Your task to perform on an android device: Open the Play Movies app and select the watchlist tab. Image 0: 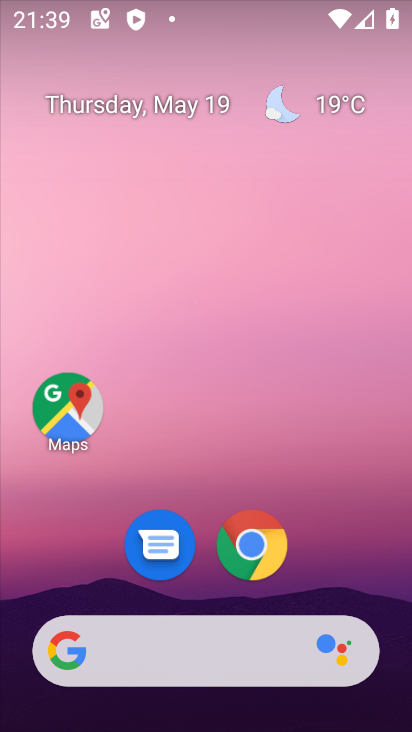
Step 0: drag from (356, 587) to (294, 196)
Your task to perform on an android device: Open the Play Movies app and select the watchlist tab. Image 1: 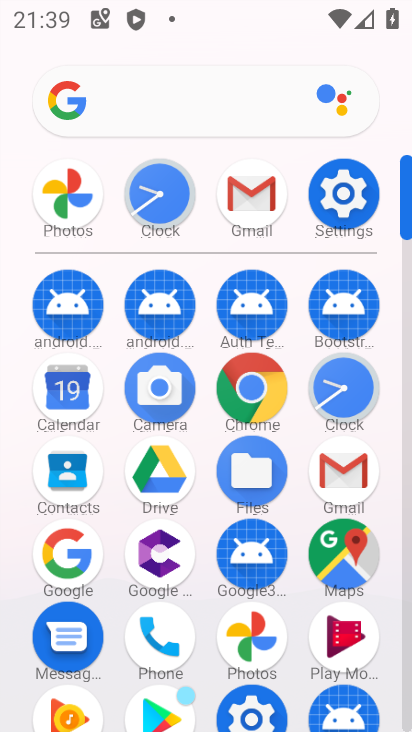
Step 1: click (408, 683)
Your task to perform on an android device: Open the Play Movies app and select the watchlist tab. Image 2: 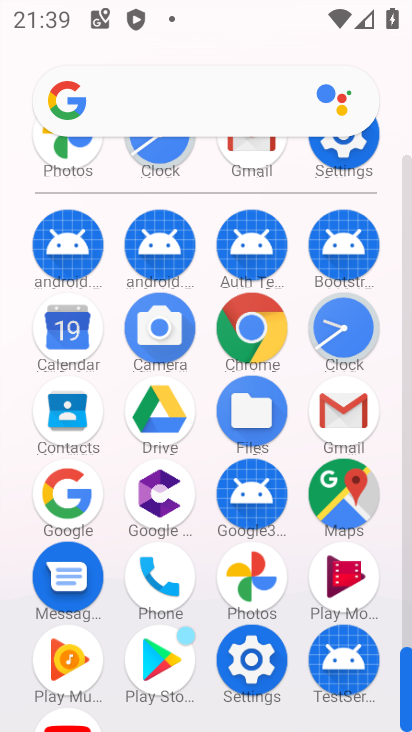
Step 2: click (339, 568)
Your task to perform on an android device: Open the Play Movies app and select the watchlist tab. Image 3: 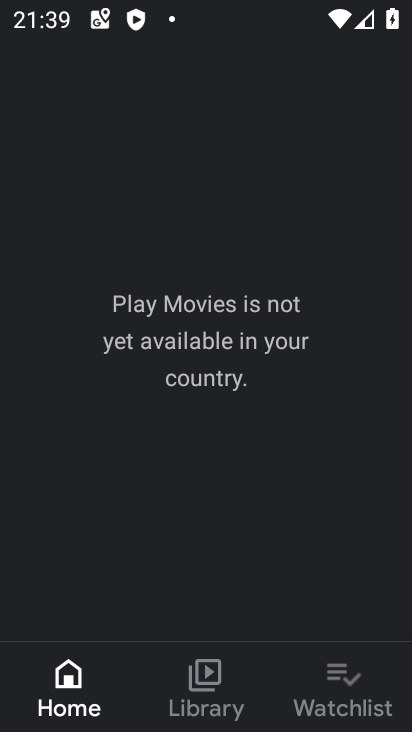
Step 3: click (364, 690)
Your task to perform on an android device: Open the Play Movies app and select the watchlist tab. Image 4: 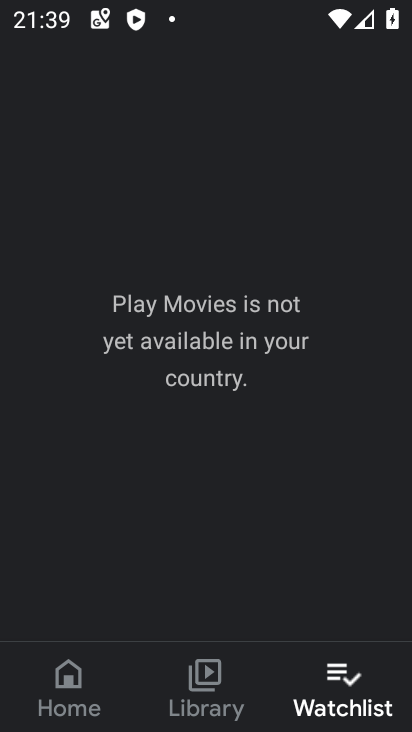
Step 4: task complete